Your task to perform on an android device: install app "Grab" Image 0: 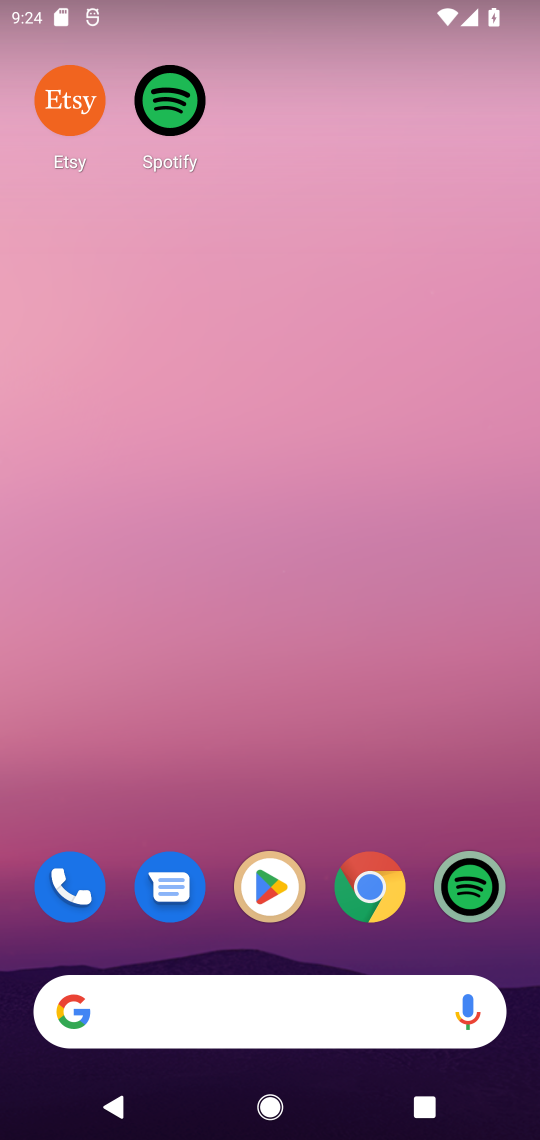
Step 0: click (266, 897)
Your task to perform on an android device: install app "Grab" Image 1: 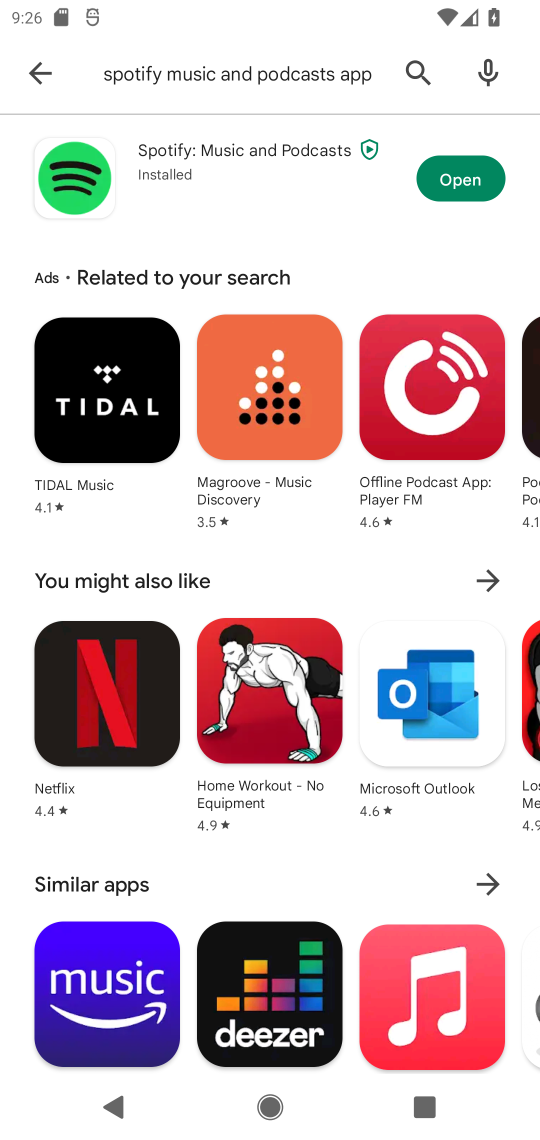
Step 1: click (416, 88)
Your task to perform on an android device: install app "Grab" Image 2: 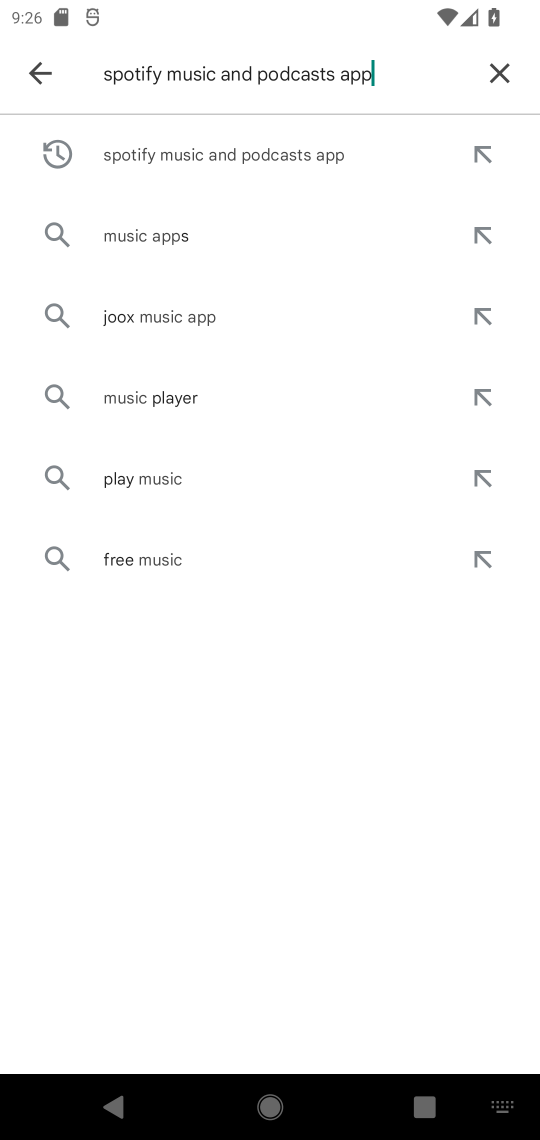
Step 2: click (502, 77)
Your task to perform on an android device: install app "Grab" Image 3: 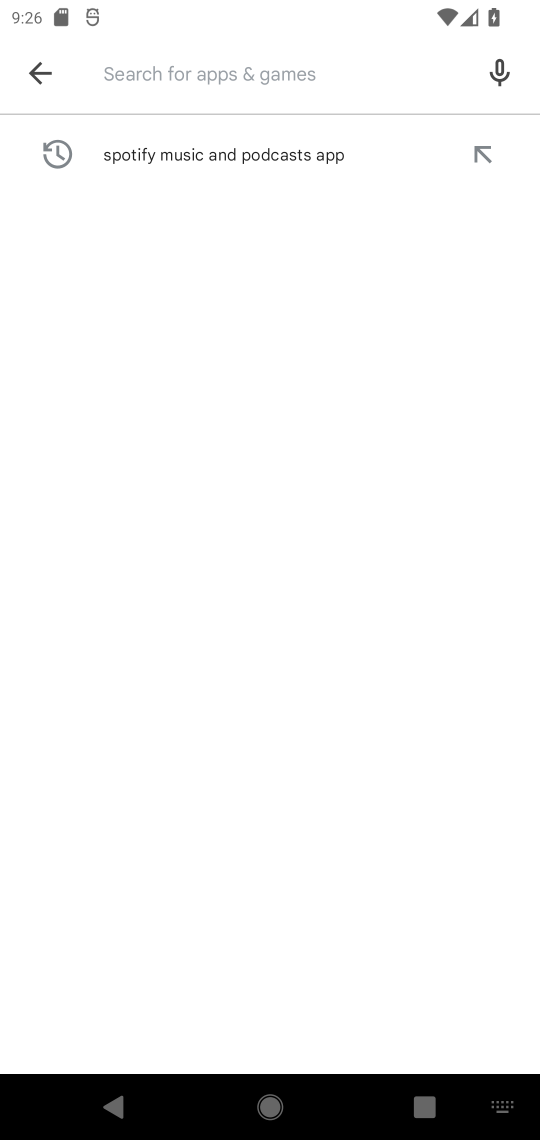
Step 3: type "grab"
Your task to perform on an android device: install app "Grab" Image 4: 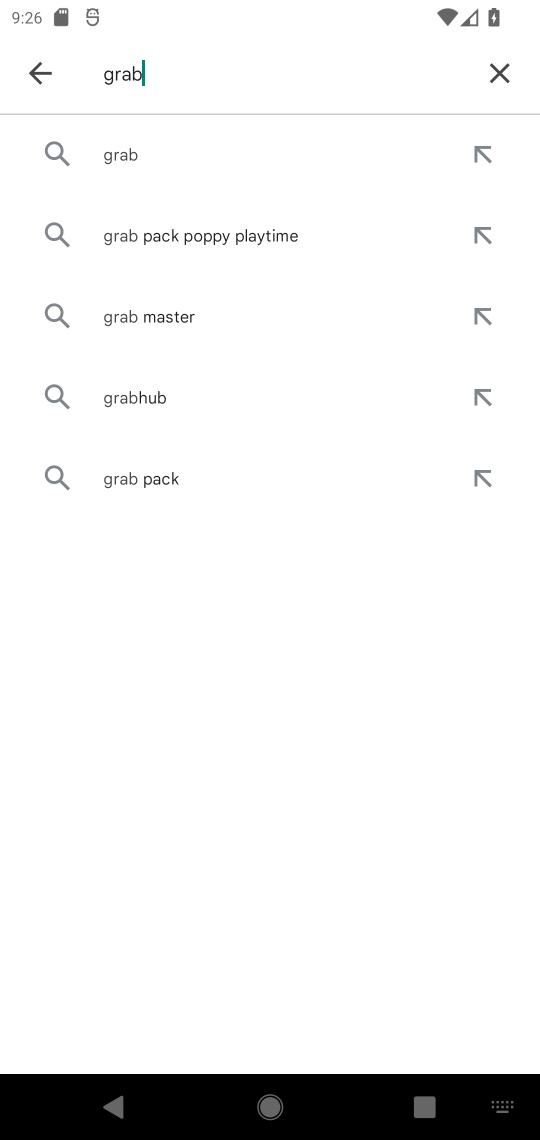
Step 4: click (131, 146)
Your task to perform on an android device: install app "Grab" Image 5: 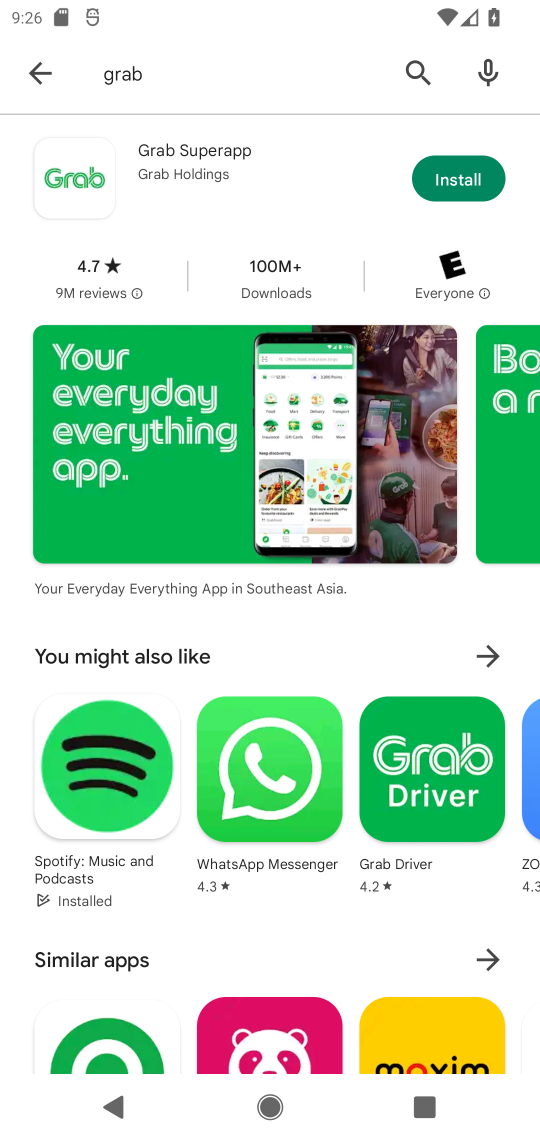
Step 5: click (454, 186)
Your task to perform on an android device: install app "Grab" Image 6: 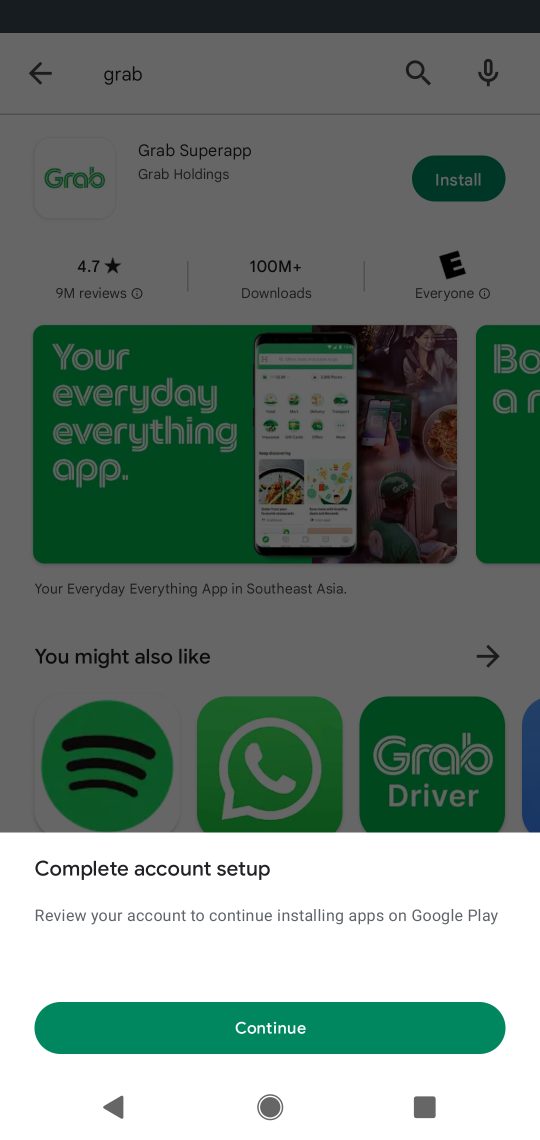
Step 6: click (279, 1054)
Your task to perform on an android device: install app "Grab" Image 7: 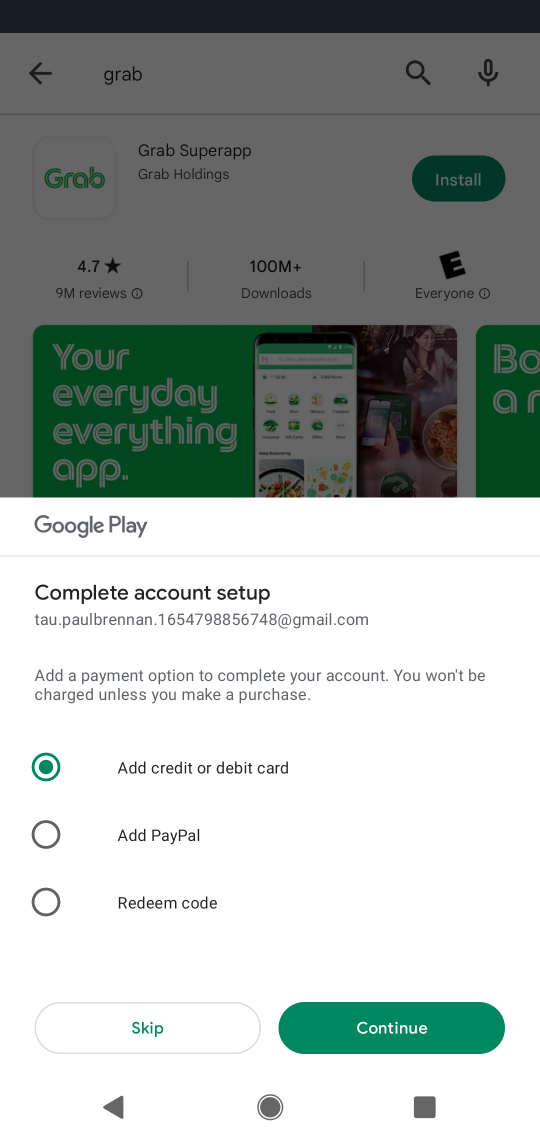
Step 7: click (108, 1031)
Your task to perform on an android device: install app "Grab" Image 8: 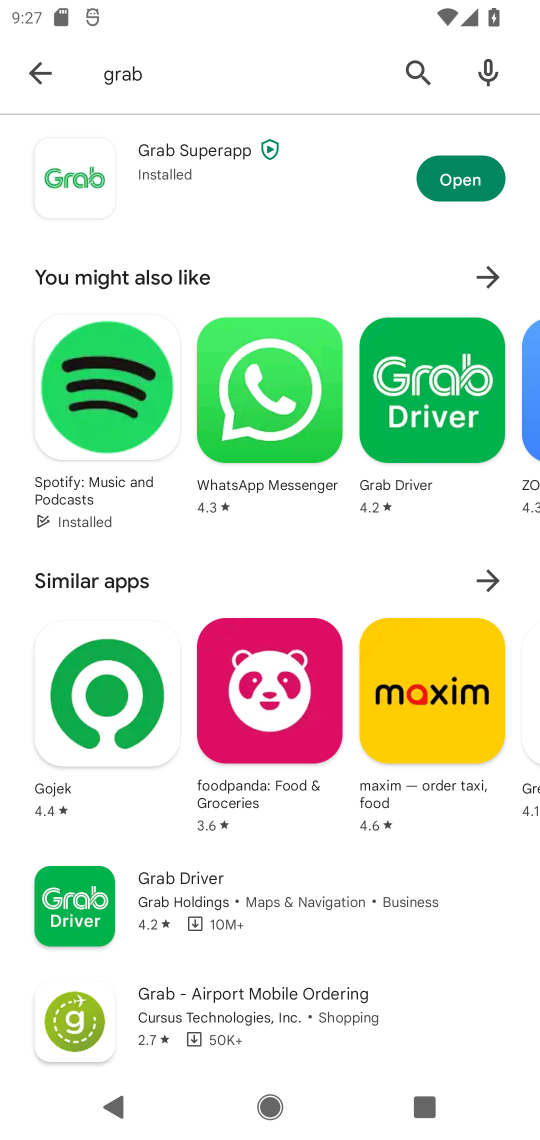
Step 8: task complete